Your task to perform on an android device: change the clock display to analog Image 0: 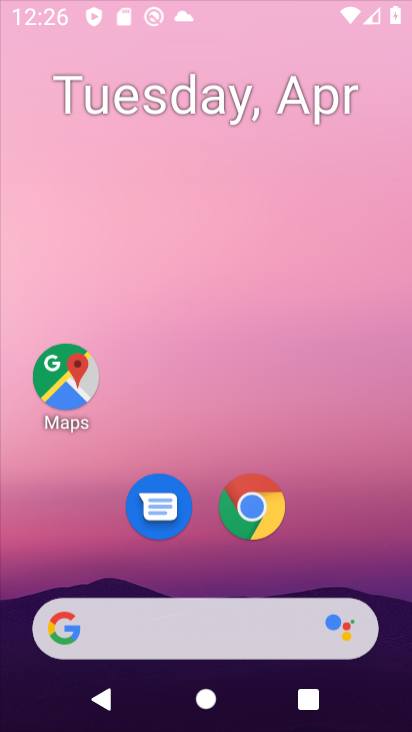
Step 0: click (213, 108)
Your task to perform on an android device: change the clock display to analog Image 1: 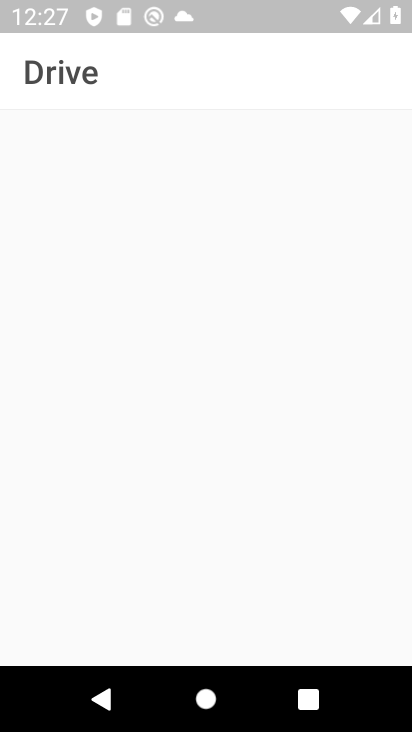
Step 1: press home button
Your task to perform on an android device: change the clock display to analog Image 2: 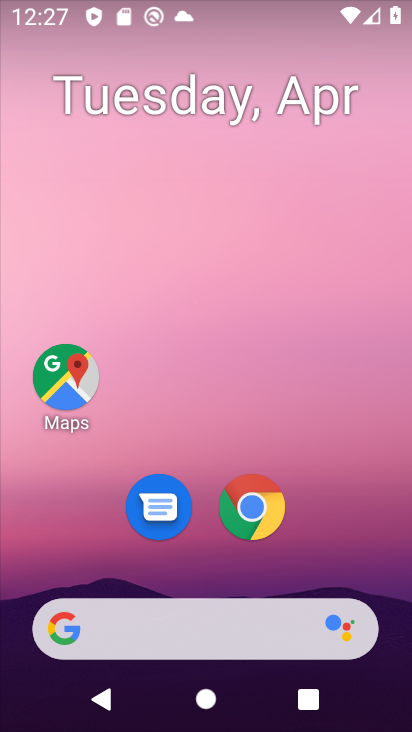
Step 2: drag from (189, 585) to (210, 131)
Your task to perform on an android device: change the clock display to analog Image 3: 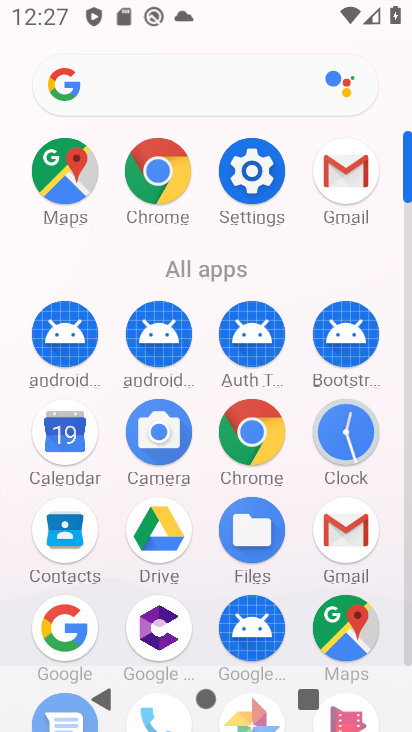
Step 3: click (357, 434)
Your task to perform on an android device: change the clock display to analog Image 4: 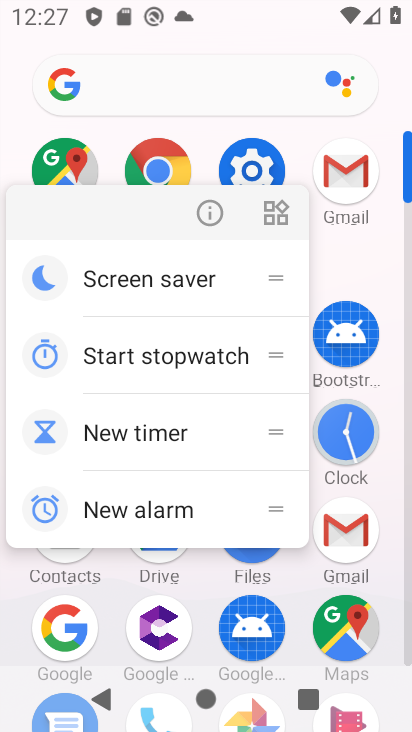
Step 4: click (354, 429)
Your task to perform on an android device: change the clock display to analog Image 5: 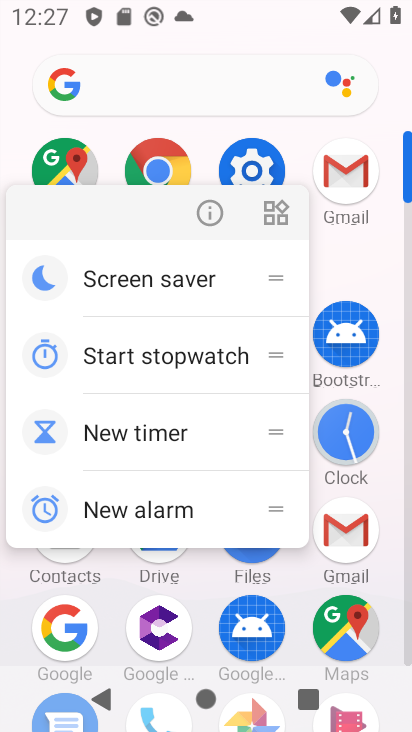
Step 5: click (354, 429)
Your task to perform on an android device: change the clock display to analog Image 6: 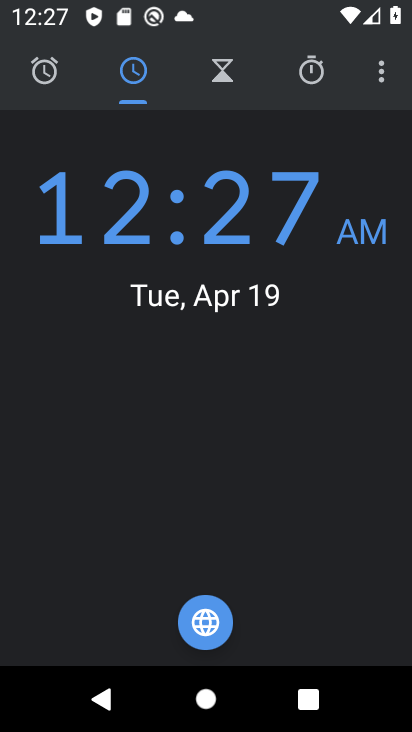
Step 6: click (369, 79)
Your task to perform on an android device: change the clock display to analog Image 7: 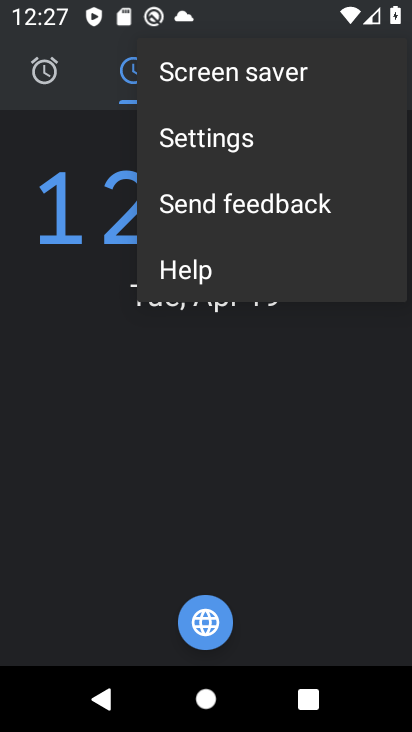
Step 7: click (284, 136)
Your task to perform on an android device: change the clock display to analog Image 8: 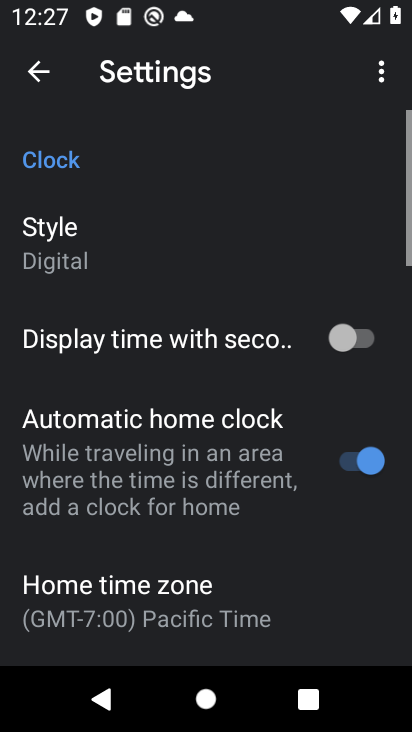
Step 8: click (199, 258)
Your task to perform on an android device: change the clock display to analog Image 9: 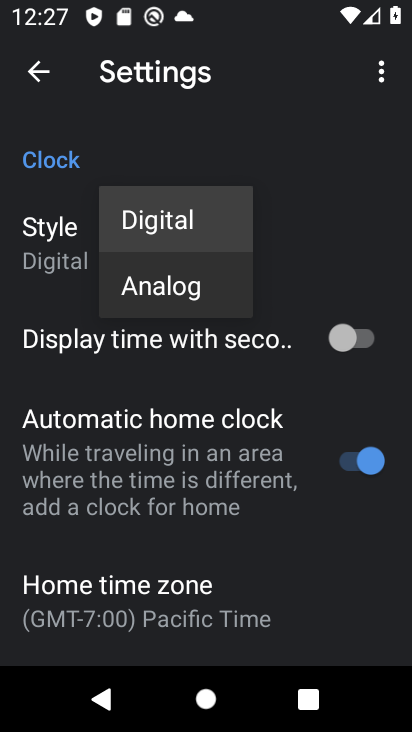
Step 9: click (201, 283)
Your task to perform on an android device: change the clock display to analog Image 10: 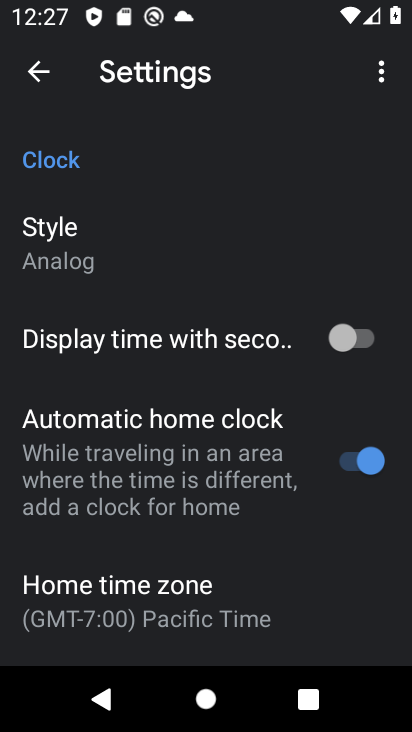
Step 10: task complete